Your task to perform on an android device: Do I have any events today? Image 0: 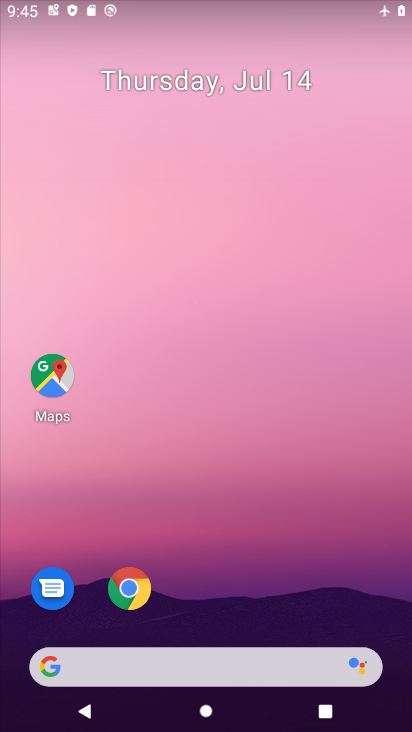
Step 0: drag from (376, 611) to (205, 57)
Your task to perform on an android device: Do I have any events today? Image 1: 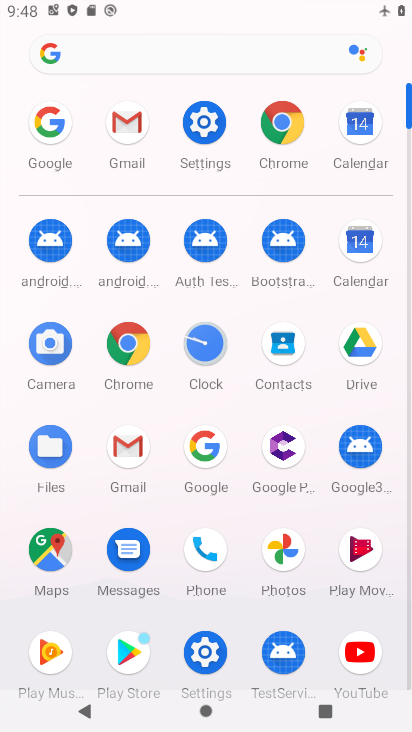
Step 1: click (357, 233)
Your task to perform on an android device: Do I have any events today? Image 2: 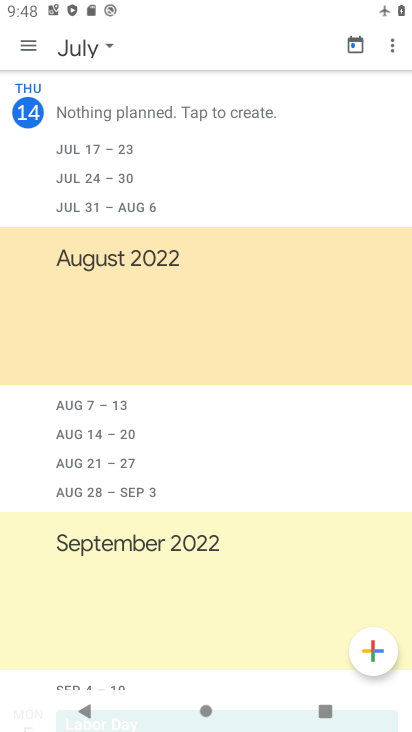
Step 2: task complete